Your task to perform on an android device: open app "Google Play Music" Image 0: 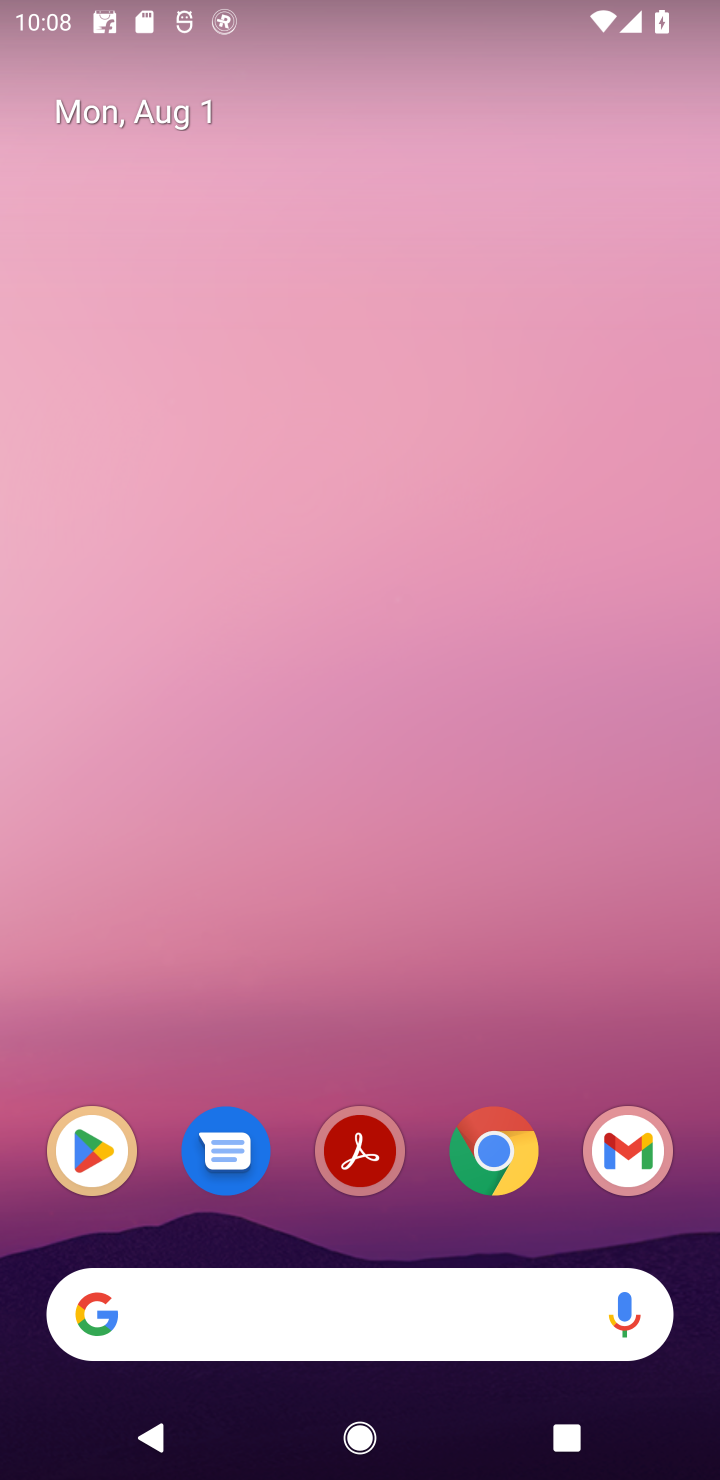
Step 0: click (75, 1167)
Your task to perform on an android device: open app "Google Play Music" Image 1: 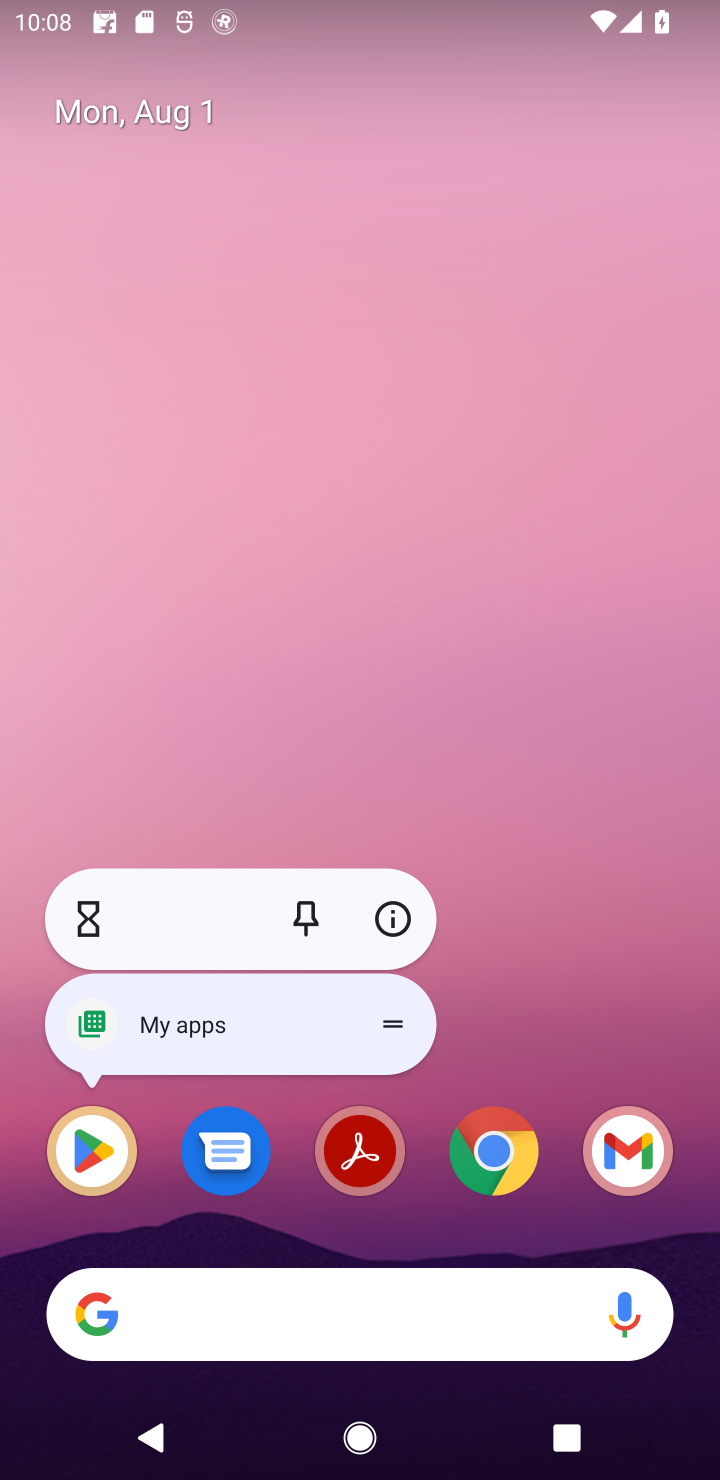
Step 1: click (122, 1157)
Your task to perform on an android device: open app "Google Play Music" Image 2: 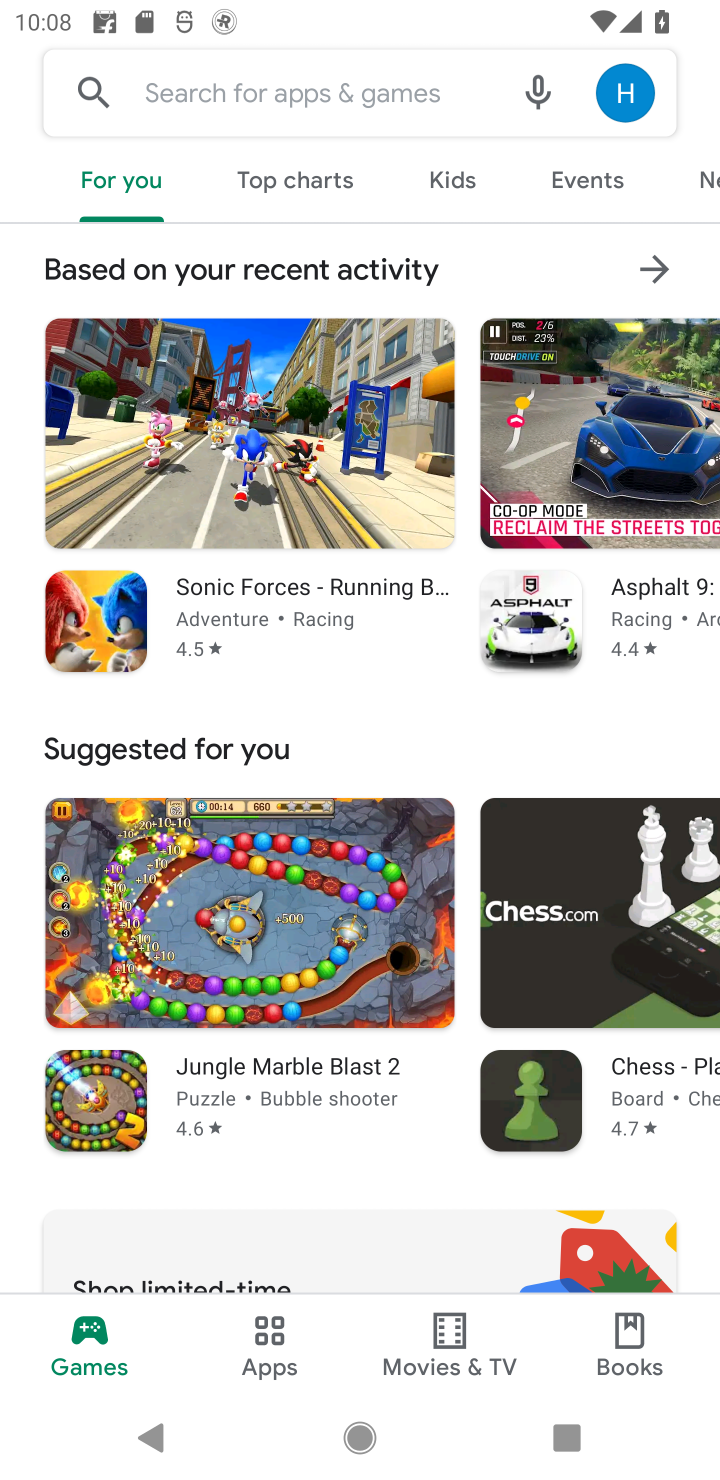
Step 2: click (284, 98)
Your task to perform on an android device: open app "Google Play Music" Image 3: 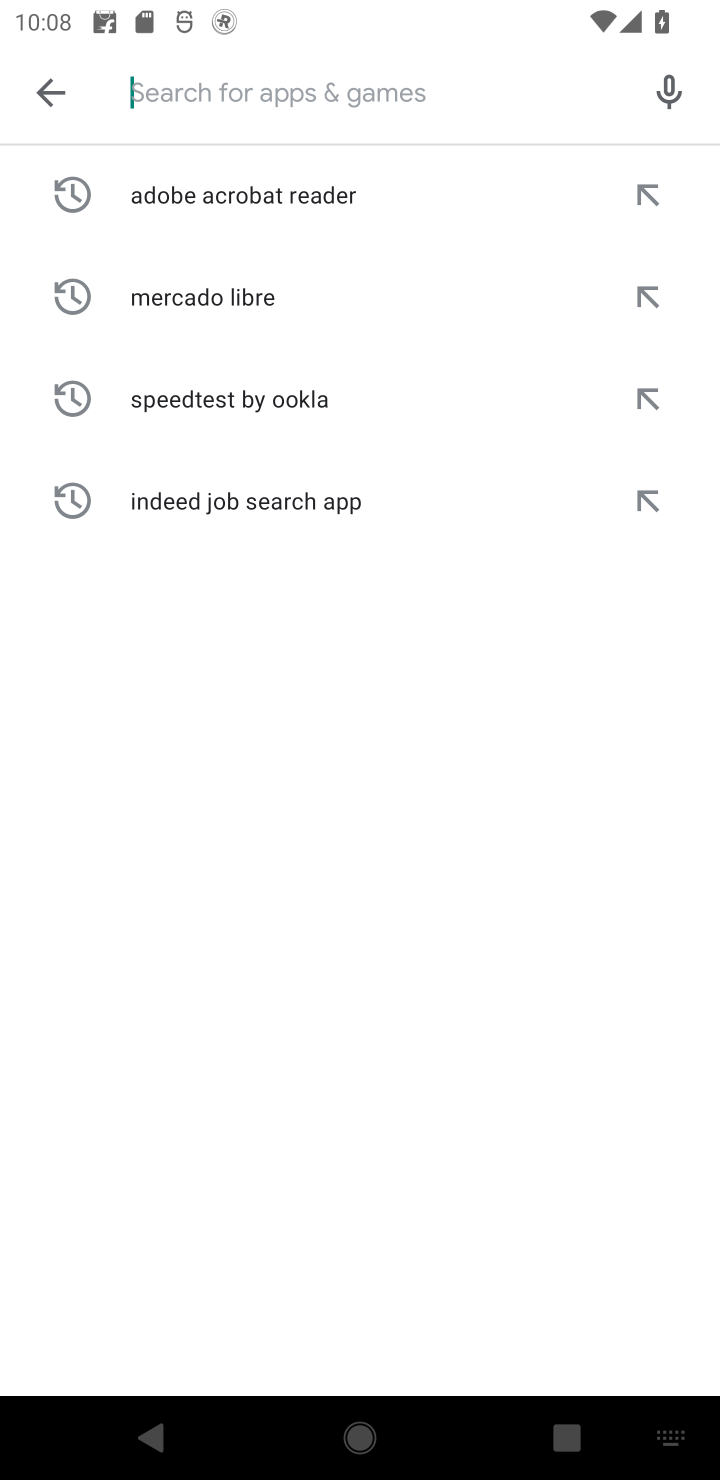
Step 3: type "Google Play Music"
Your task to perform on an android device: open app "Google Play Music" Image 4: 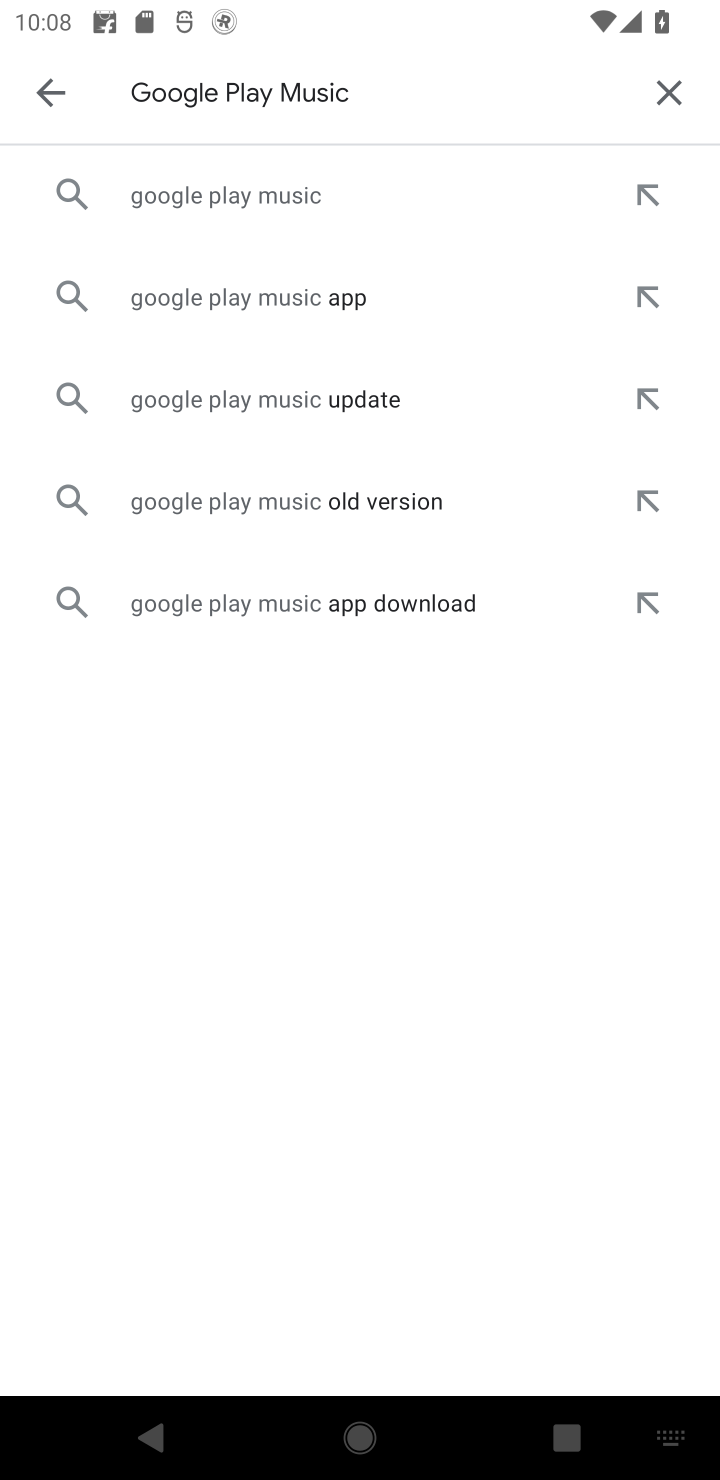
Step 4: click (217, 198)
Your task to perform on an android device: open app "Google Play Music" Image 5: 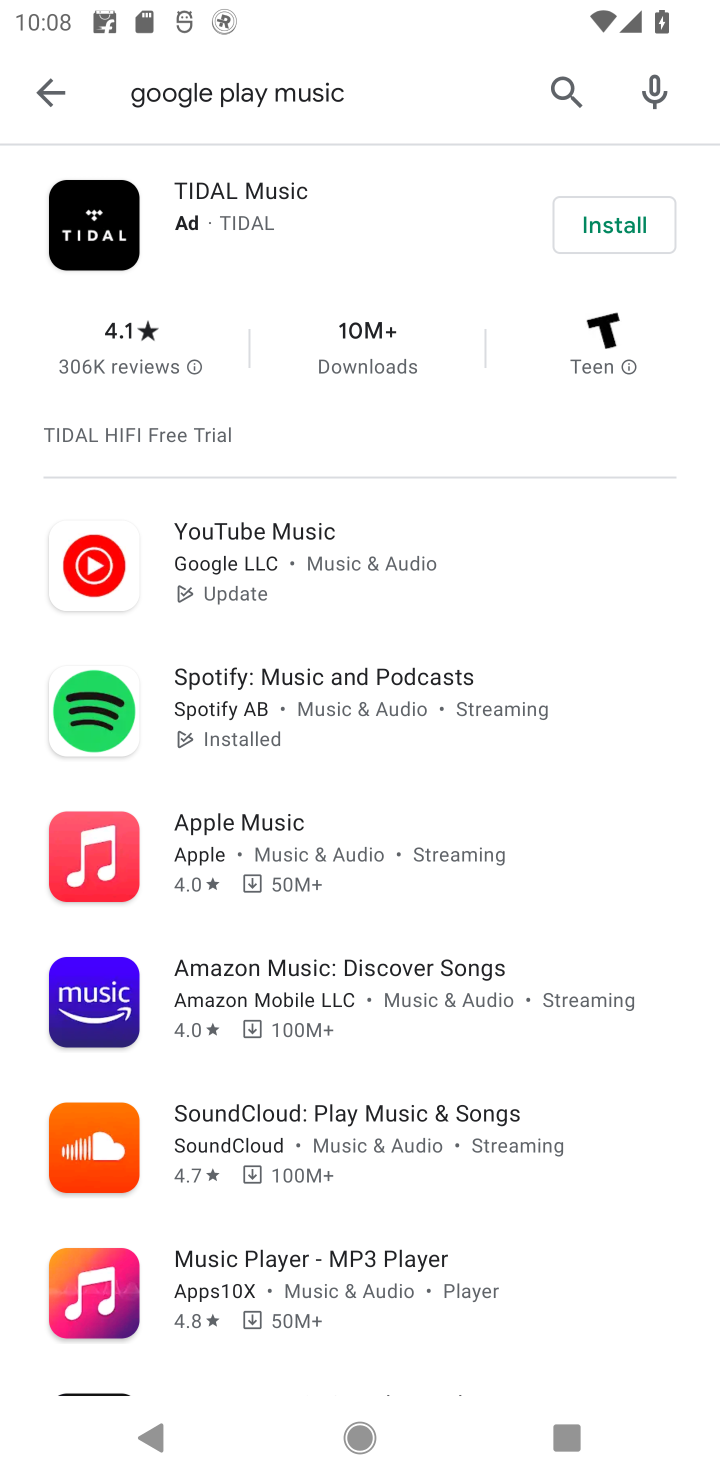
Step 5: task complete